Your task to perform on an android device: uninstall "VLC for Android" Image 0: 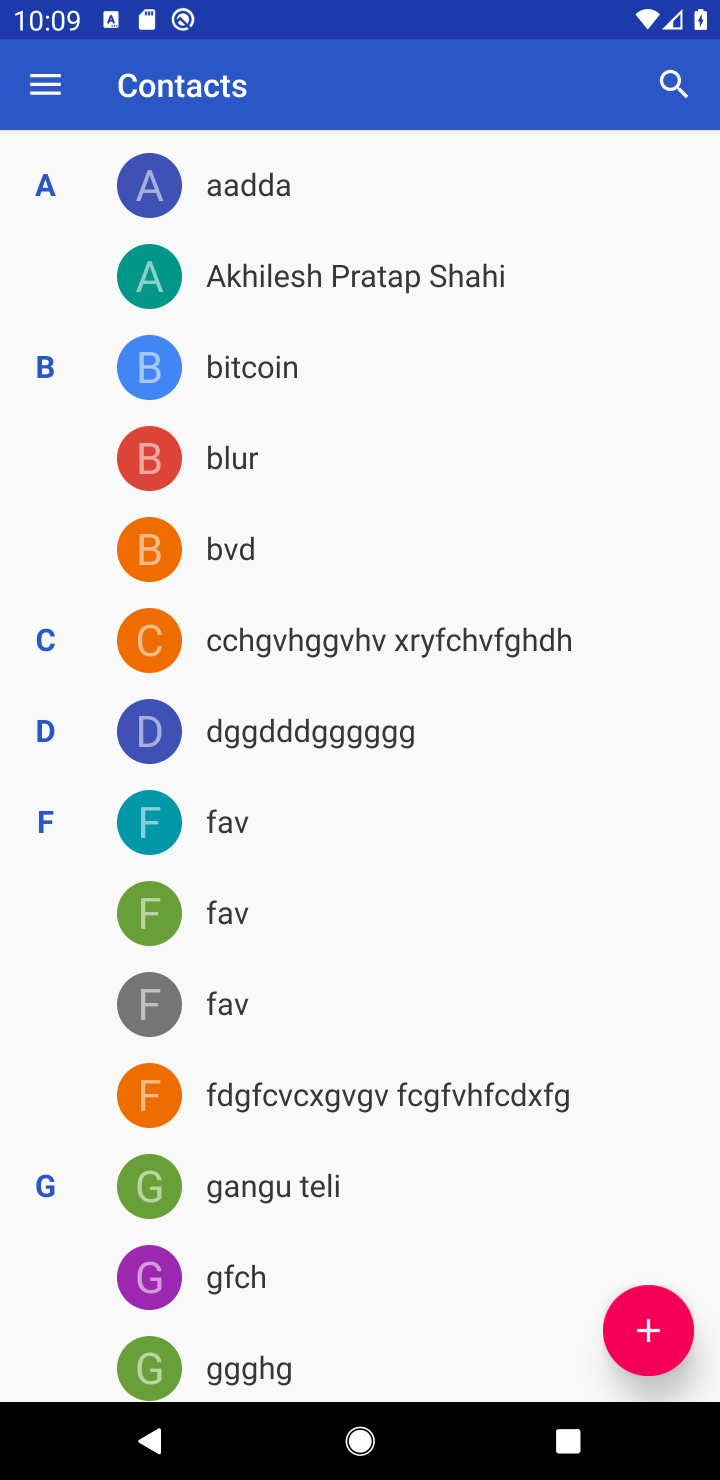
Step 0: press back button
Your task to perform on an android device: uninstall "VLC for Android" Image 1: 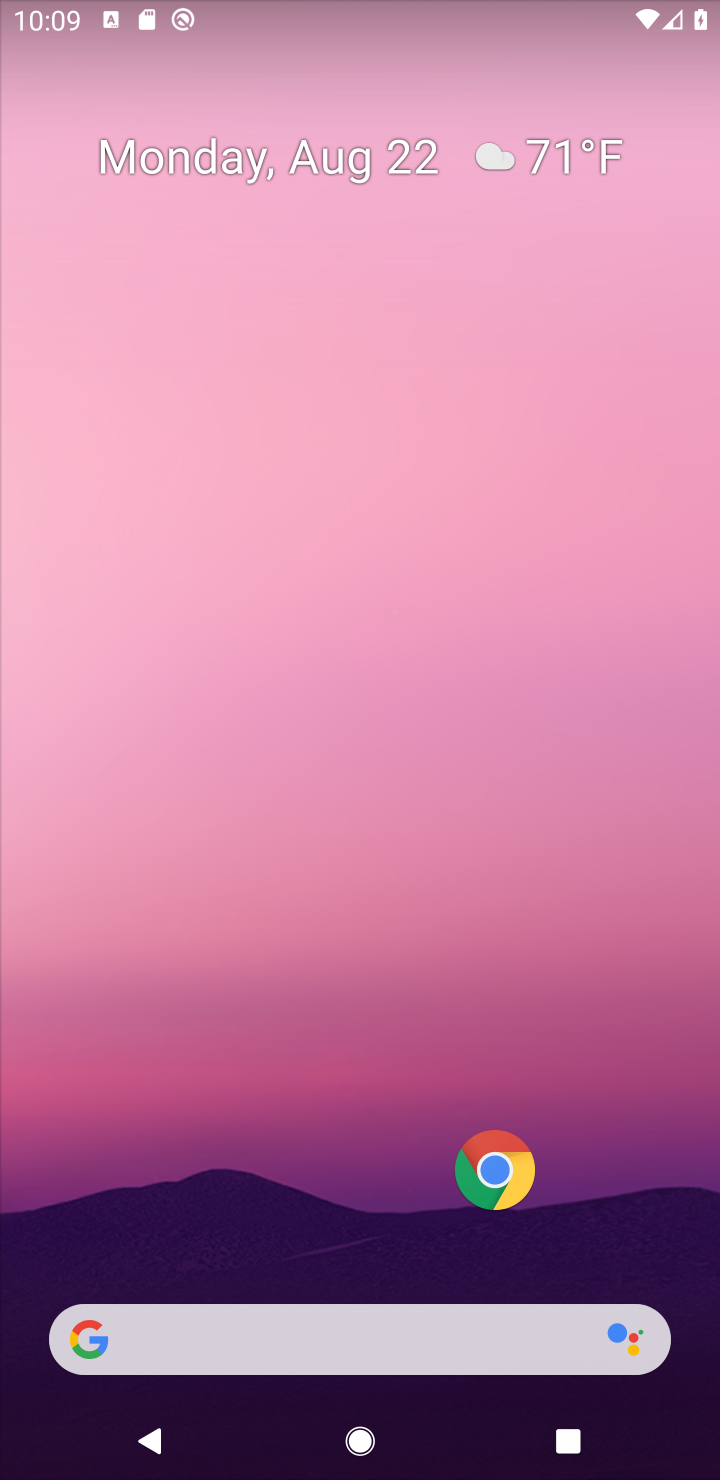
Step 1: drag from (290, 981) to (416, 150)
Your task to perform on an android device: uninstall "VLC for Android" Image 2: 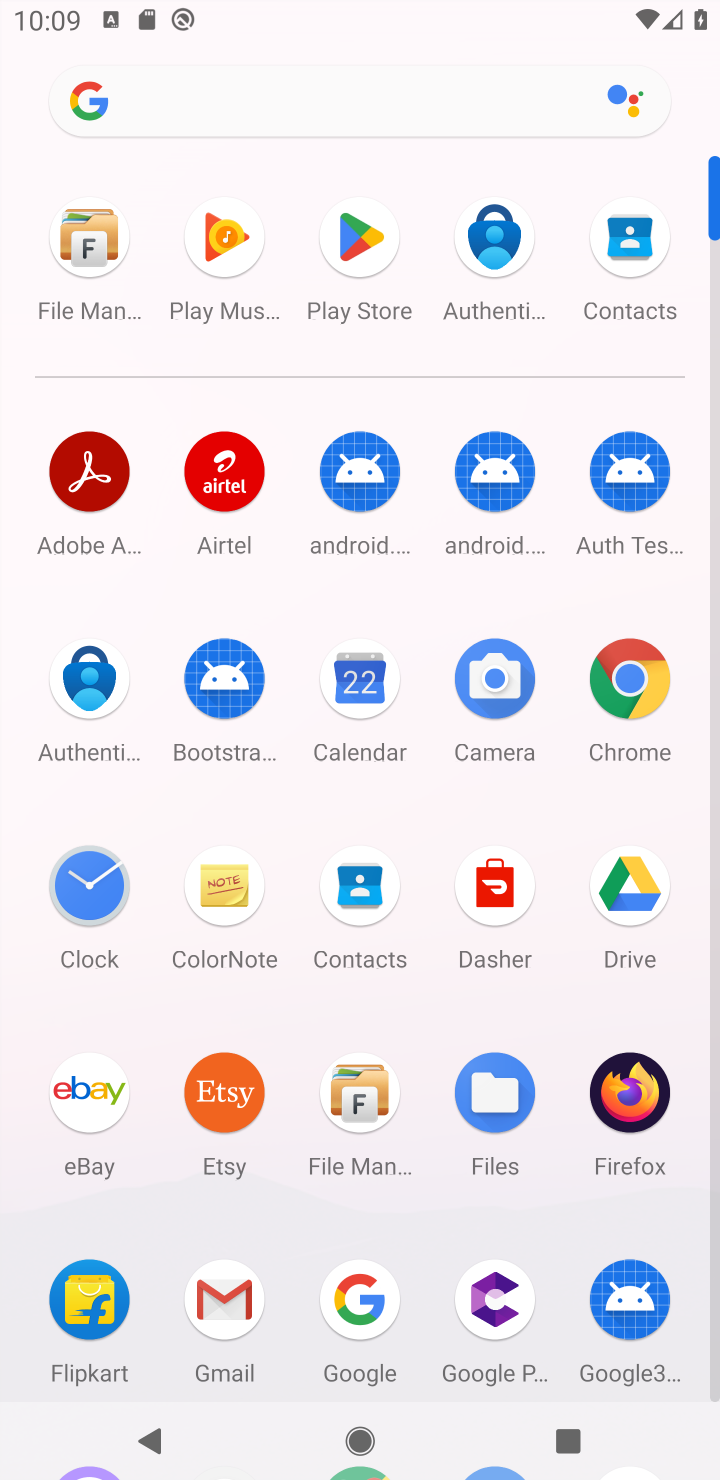
Step 2: click (353, 240)
Your task to perform on an android device: uninstall "VLC for Android" Image 3: 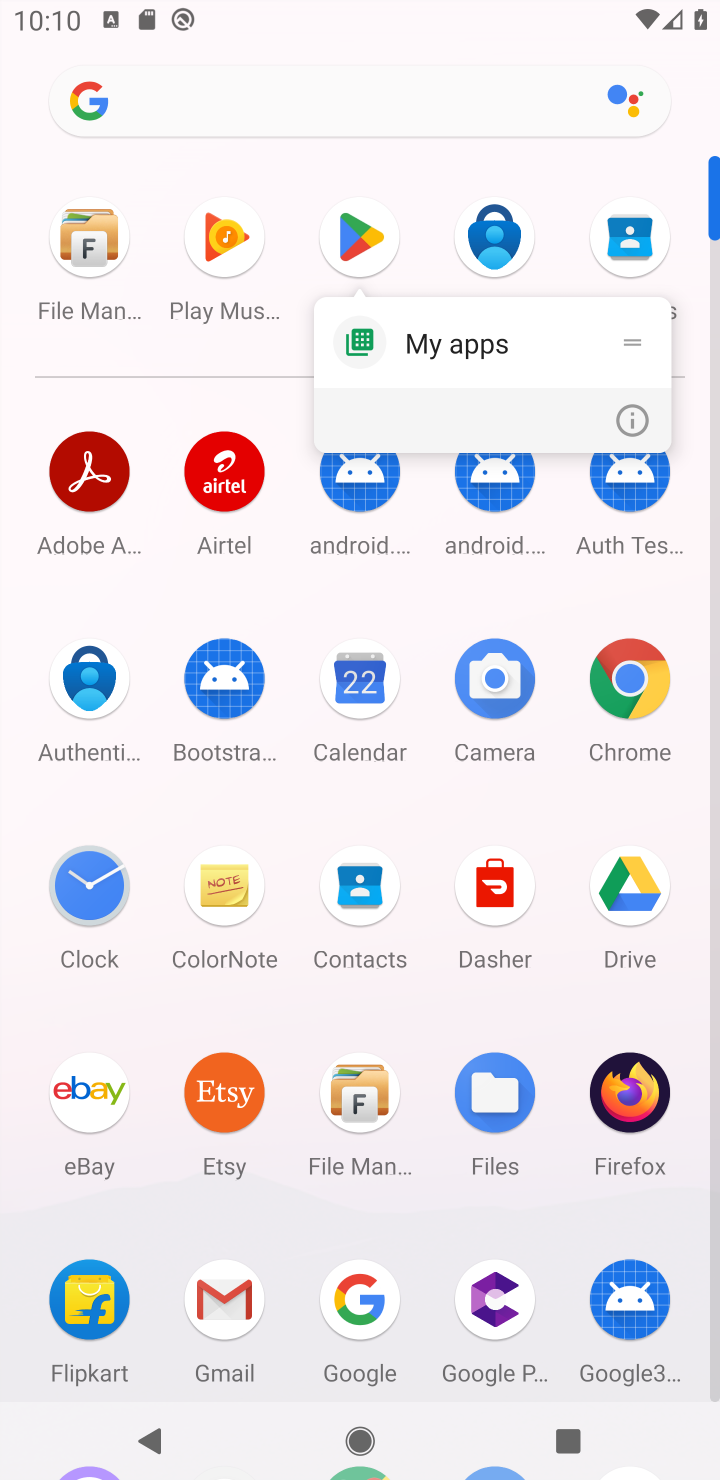
Step 3: click (337, 230)
Your task to perform on an android device: uninstall "VLC for Android" Image 4: 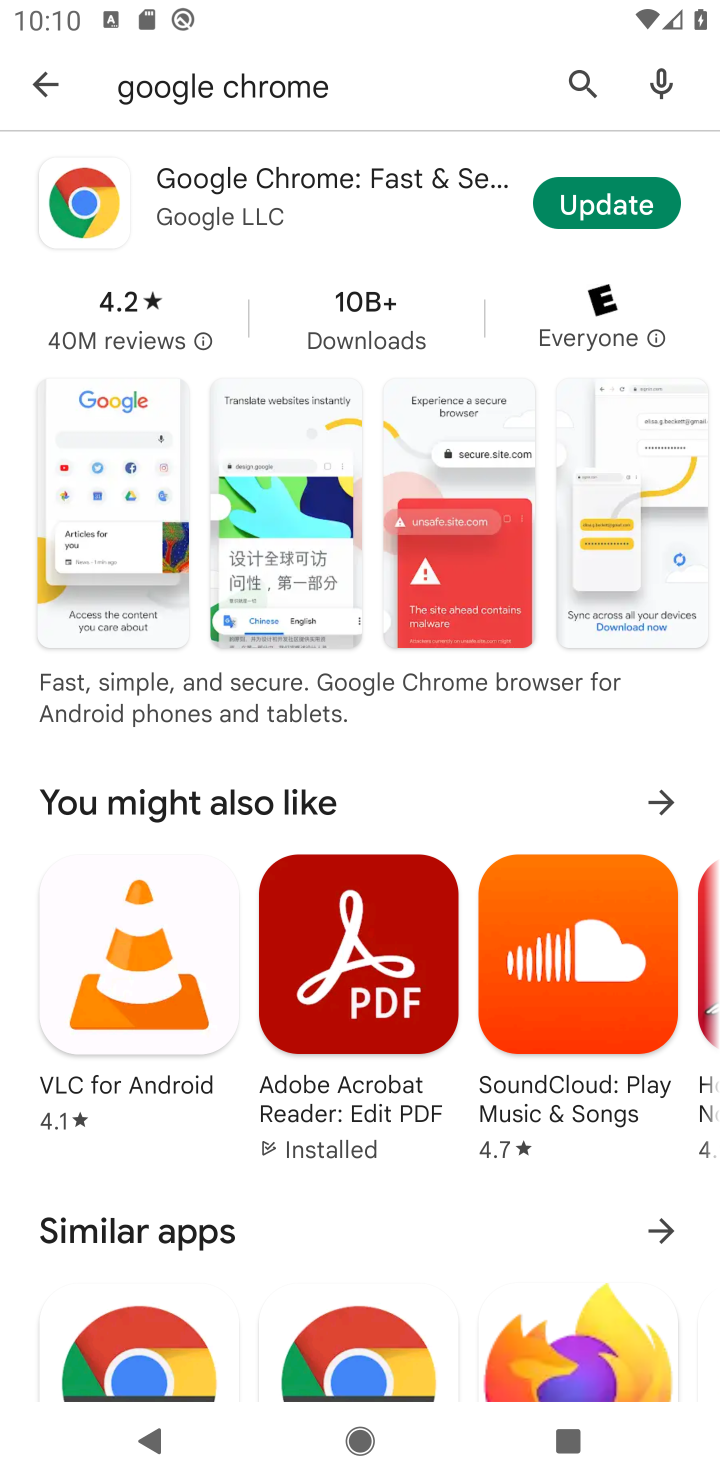
Step 4: click (587, 72)
Your task to perform on an android device: uninstall "VLC for Android" Image 5: 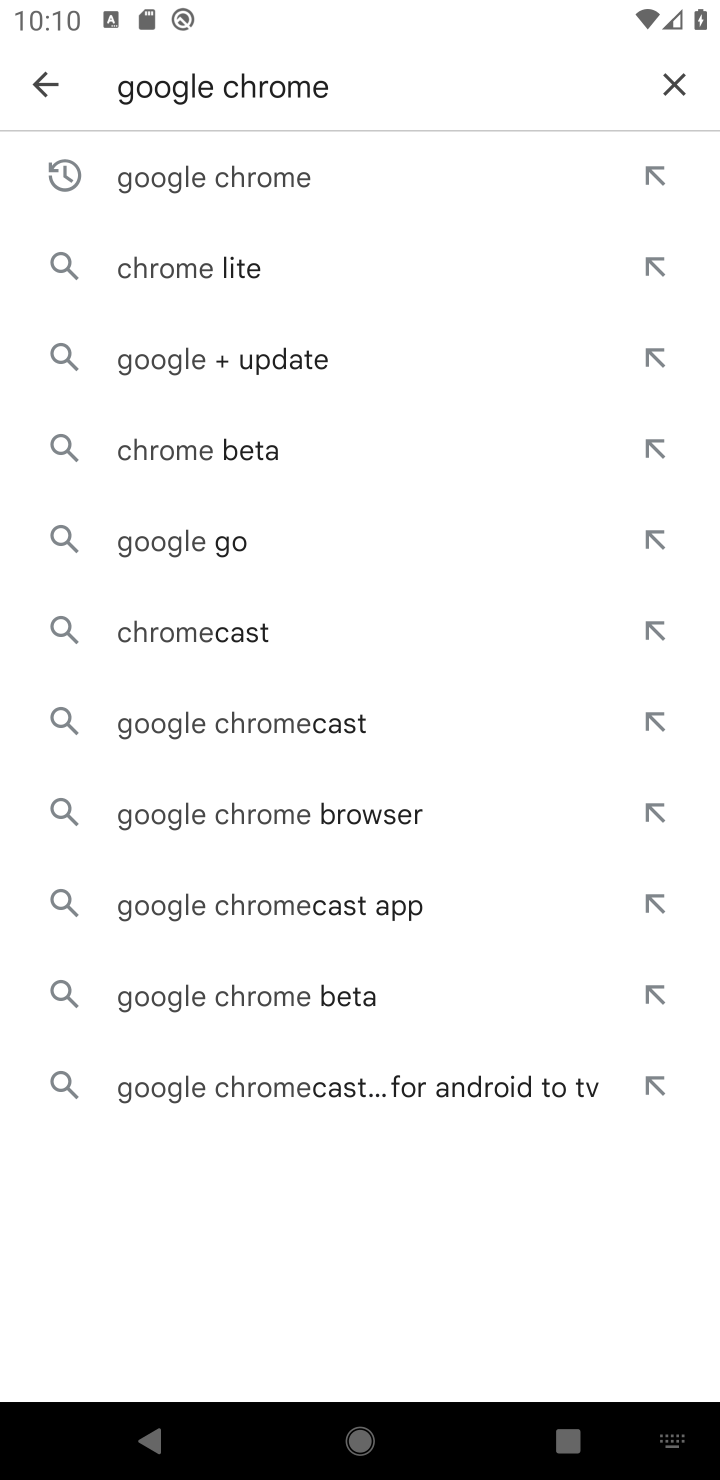
Step 5: click (680, 72)
Your task to perform on an android device: uninstall "VLC for Android" Image 6: 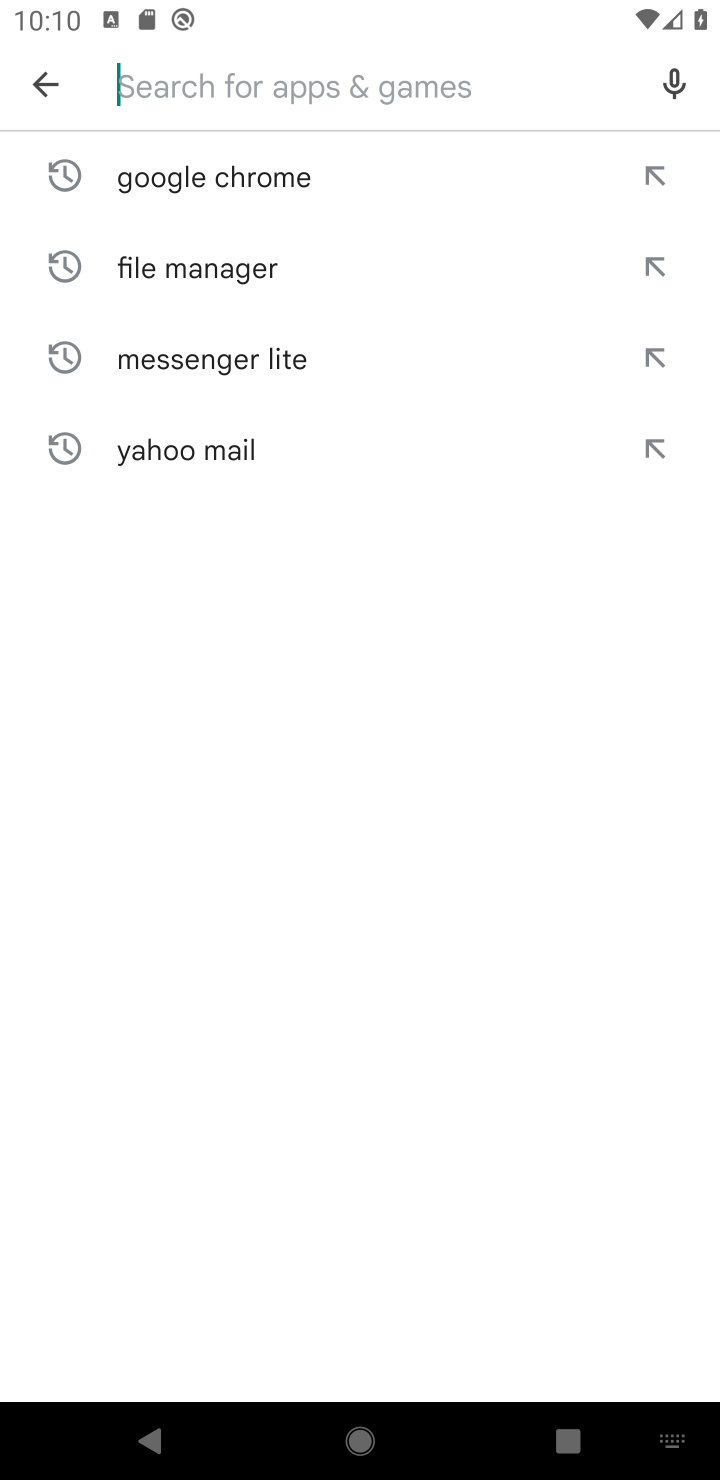
Step 6: click (408, 85)
Your task to perform on an android device: uninstall "VLC for Android" Image 7: 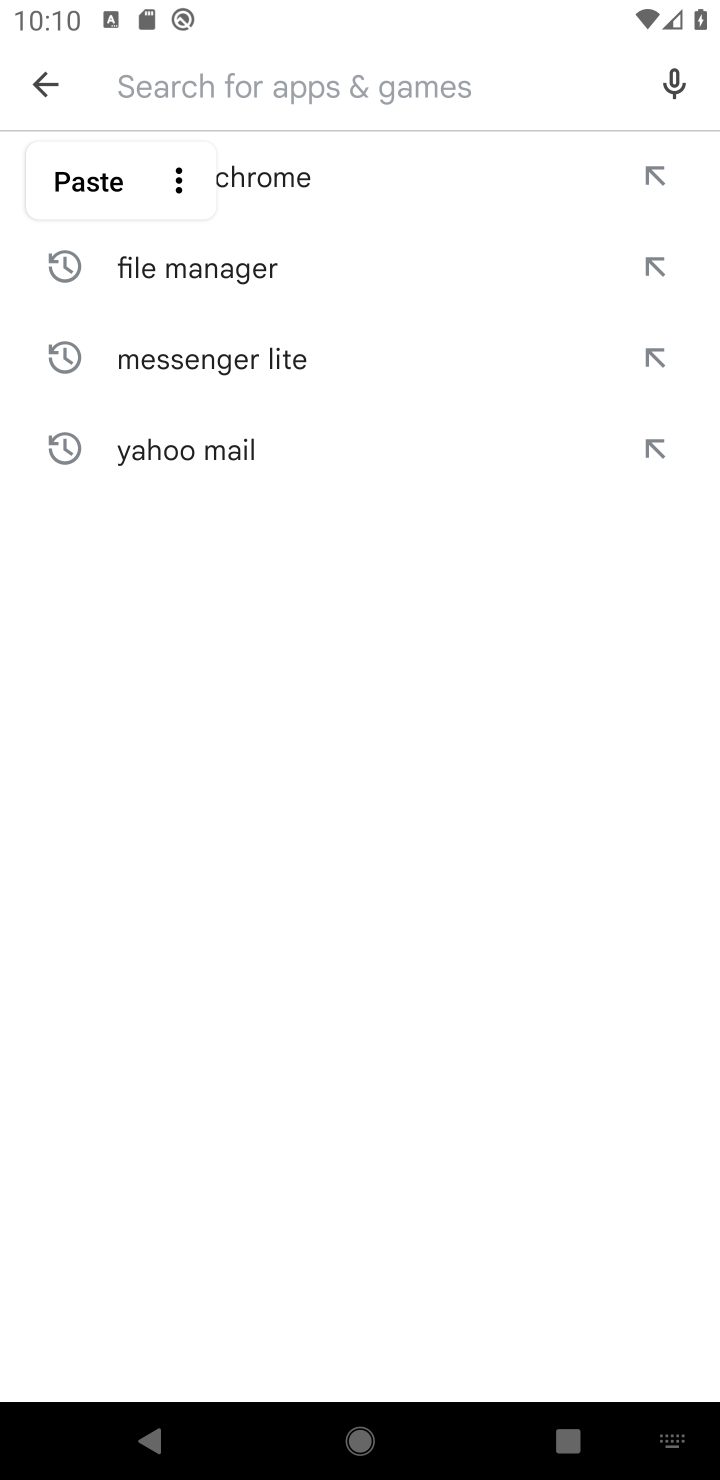
Step 7: type "vlc for android"
Your task to perform on an android device: uninstall "VLC for Android" Image 8: 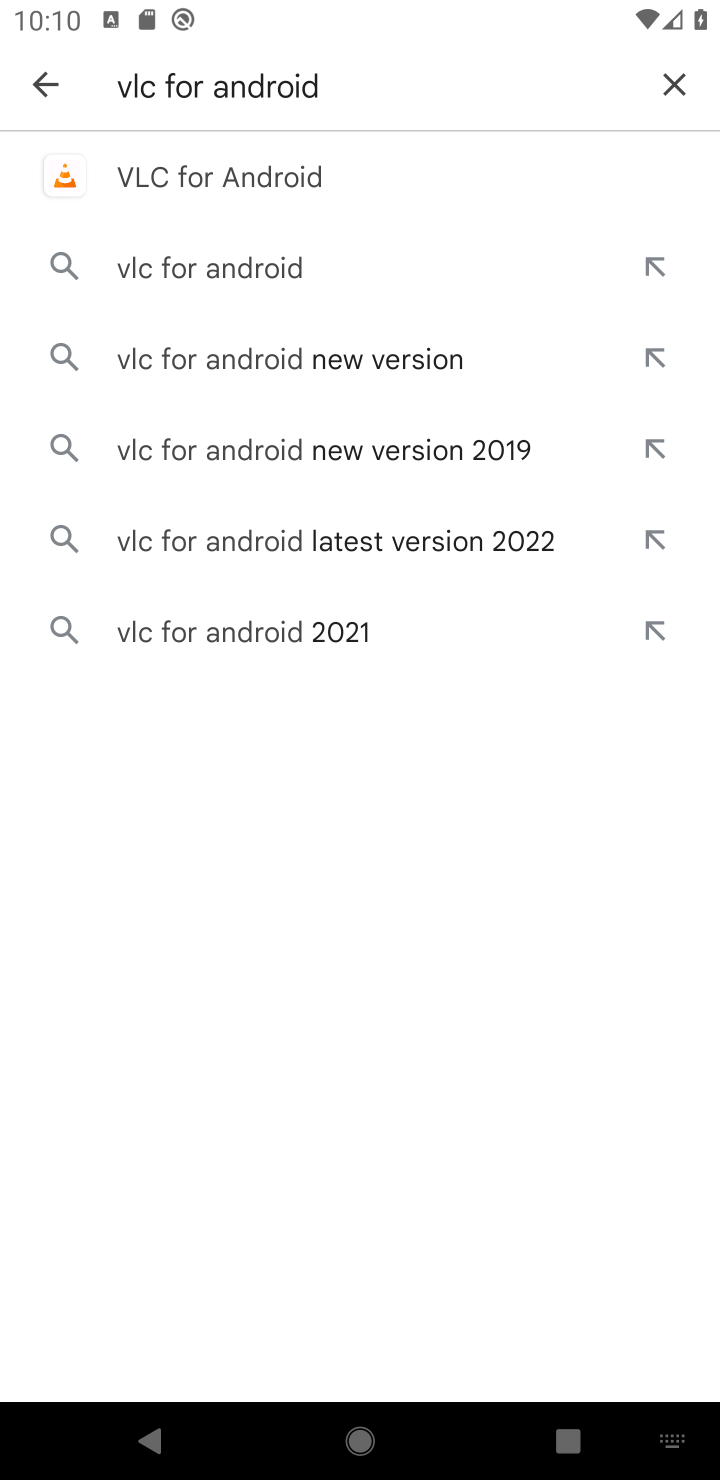
Step 8: click (293, 152)
Your task to perform on an android device: uninstall "VLC for Android" Image 9: 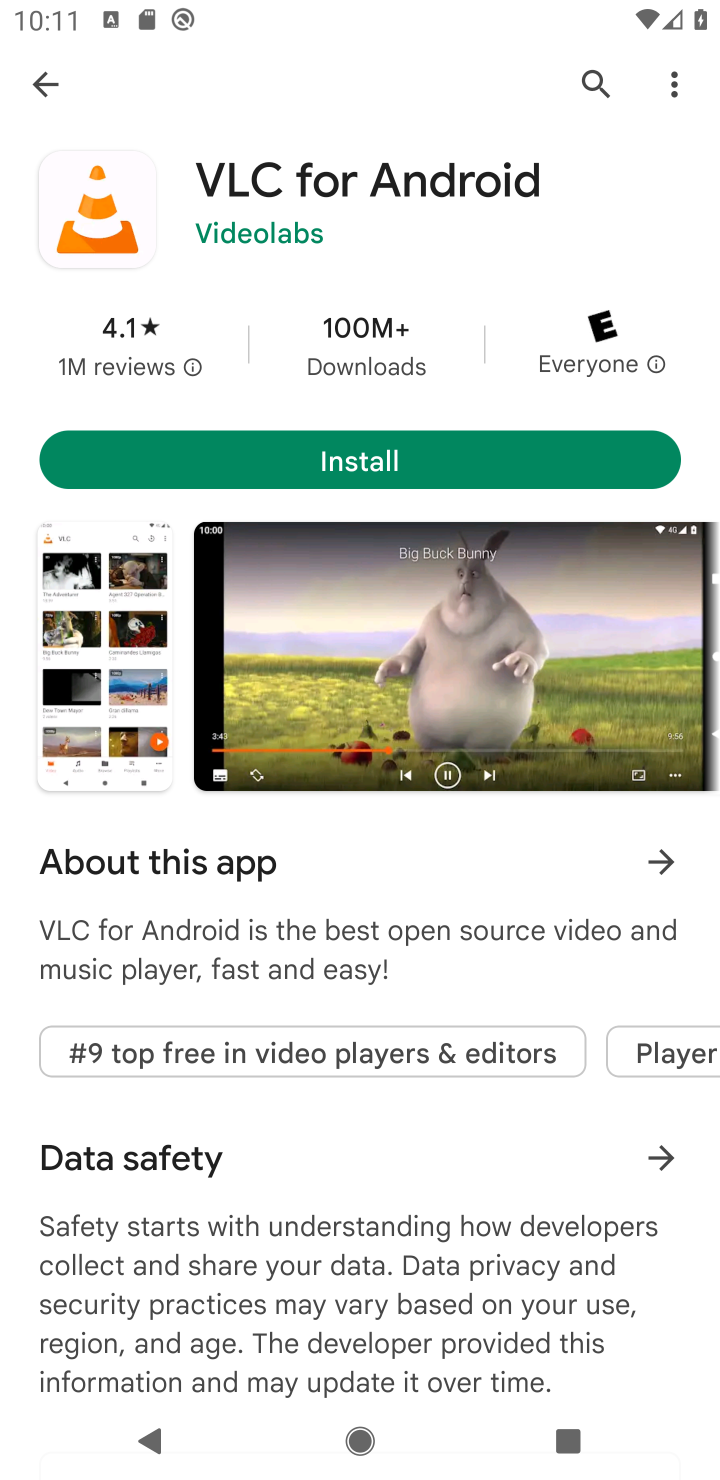
Step 9: task complete